Your task to perform on an android device: Search for seafood restaurants on Google Maps Image 0: 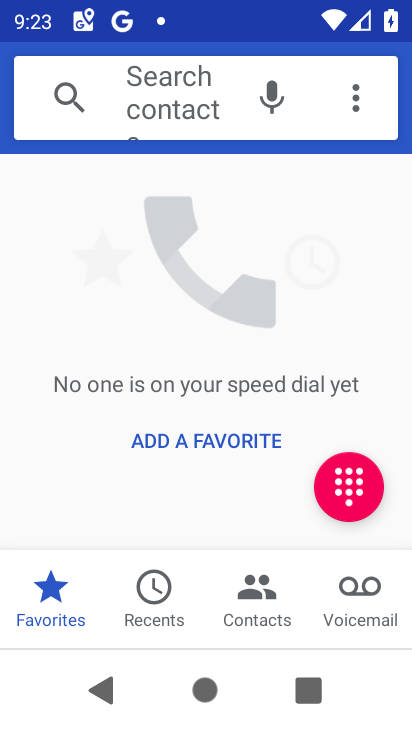
Step 0: press home button
Your task to perform on an android device: Search for seafood restaurants on Google Maps Image 1: 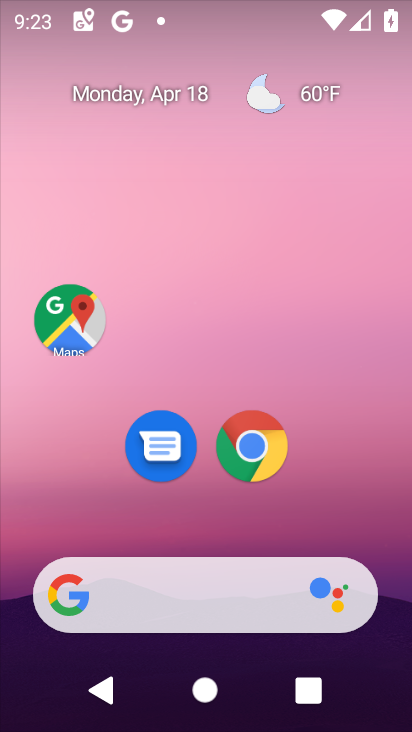
Step 1: drag from (384, 511) to (365, 138)
Your task to perform on an android device: Search for seafood restaurants on Google Maps Image 2: 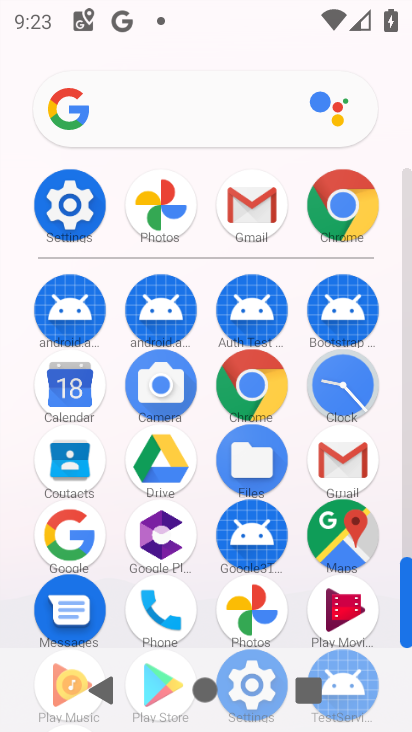
Step 2: click (348, 549)
Your task to perform on an android device: Search for seafood restaurants on Google Maps Image 3: 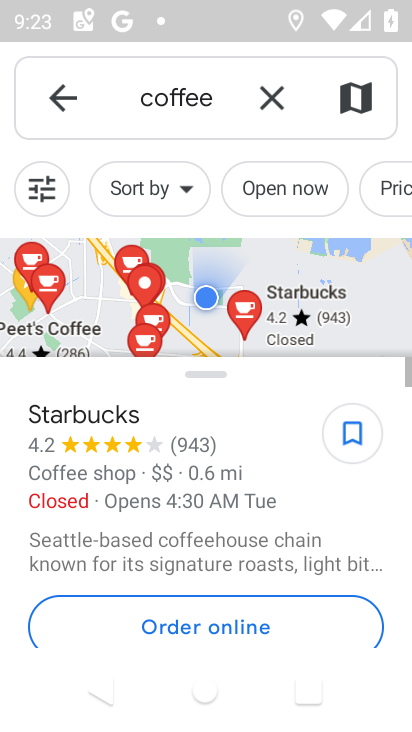
Step 3: click (226, 93)
Your task to perform on an android device: Search for seafood restaurants on Google Maps Image 4: 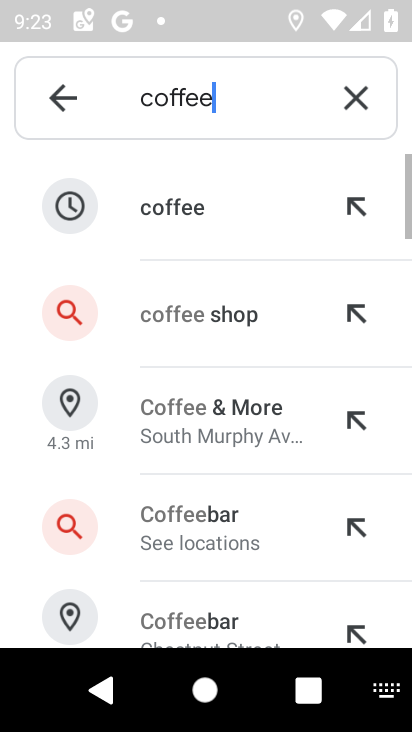
Step 4: click (360, 95)
Your task to perform on an android device: Search for seafood restaurants on Google Maps Image 5: 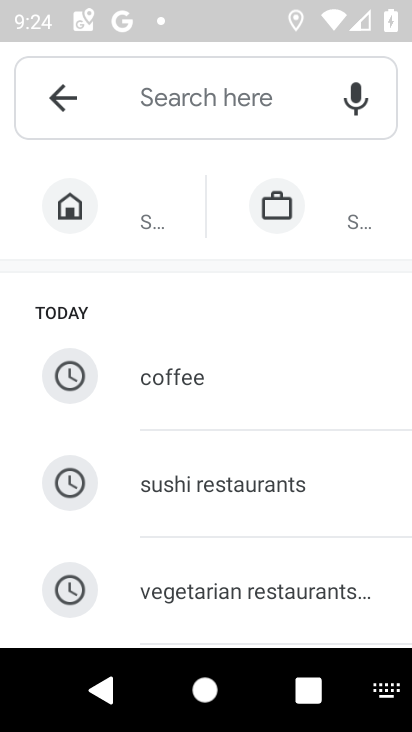
Step 5: type "seafood restaurants"
Your task to perform on an android device: Search for seafood restaurants on Google Maps Image 6: 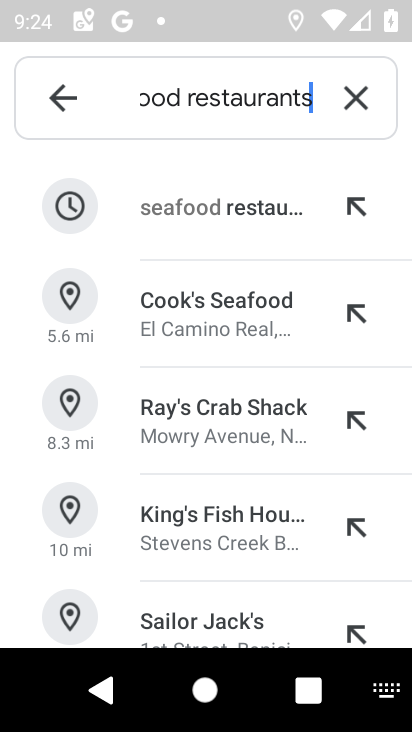
Step 6: click (229, 205)
Your task to perform on an android device: Search for seafood restaurants on Google Maps Image 7: 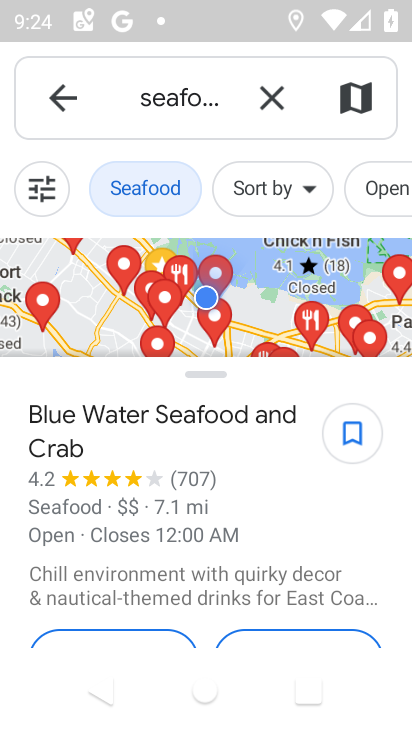
Step 7: task complete